Your task to perform on an android device: Go to display settings Image 0: 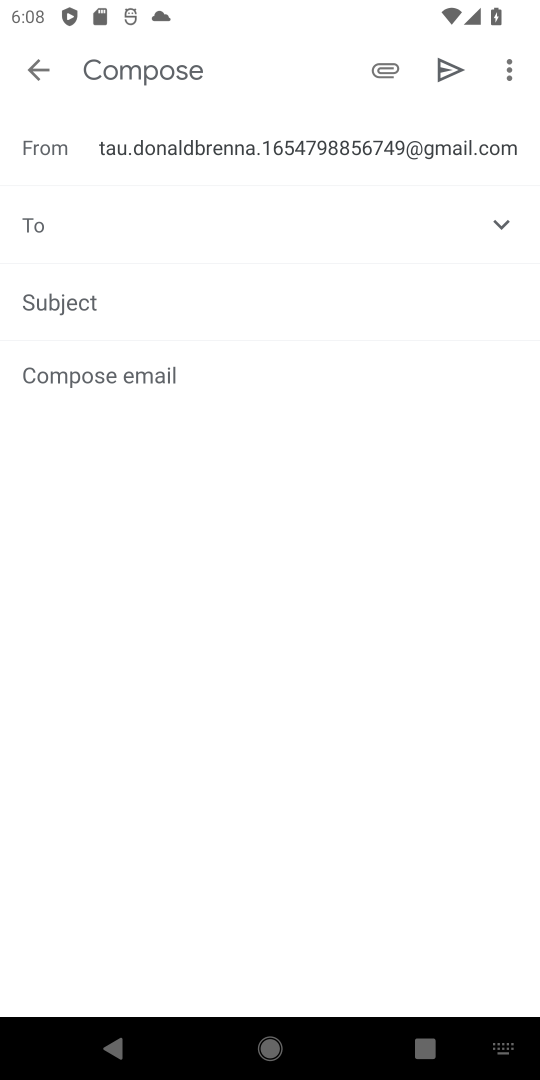
Step 0: press back button
Your task to perform on an android device: Go to display settings Image 1: 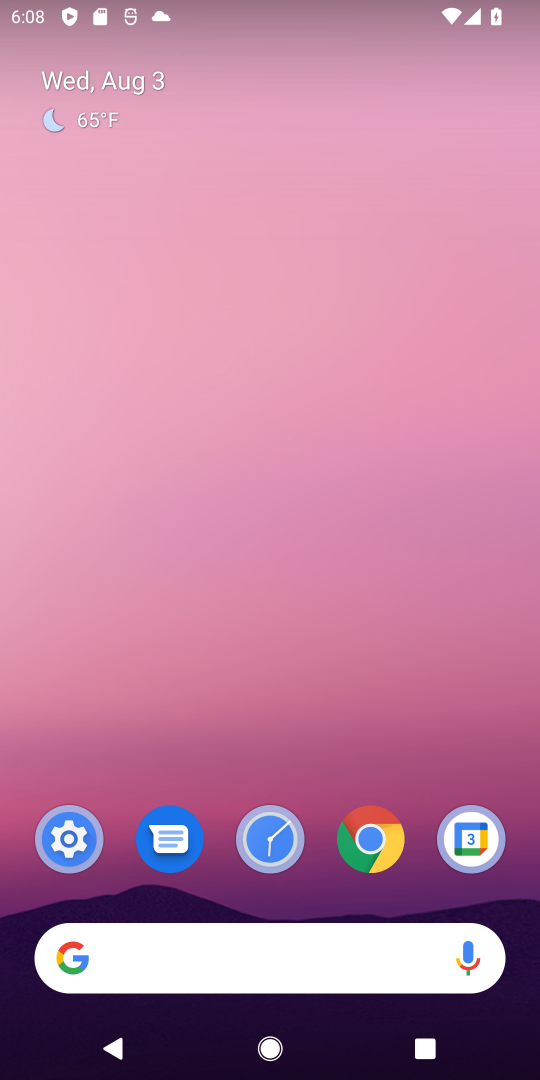
Step 1: click (85, 838)
Your task to perform on an android device: Go to display settings Image 2: 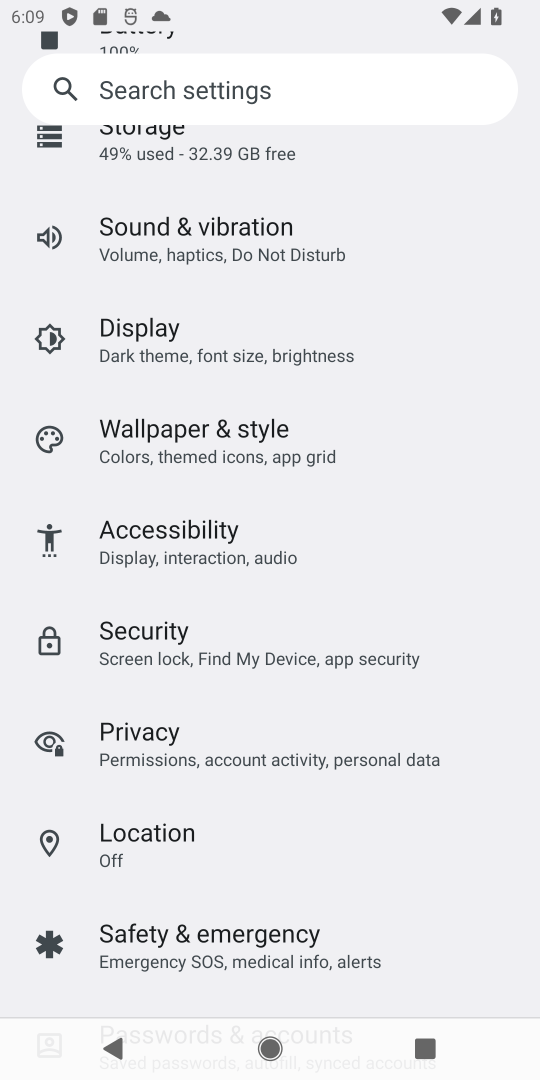
Step 2: click (155, 339)
Your task to perform on an android device: Go to display settings Image 3: 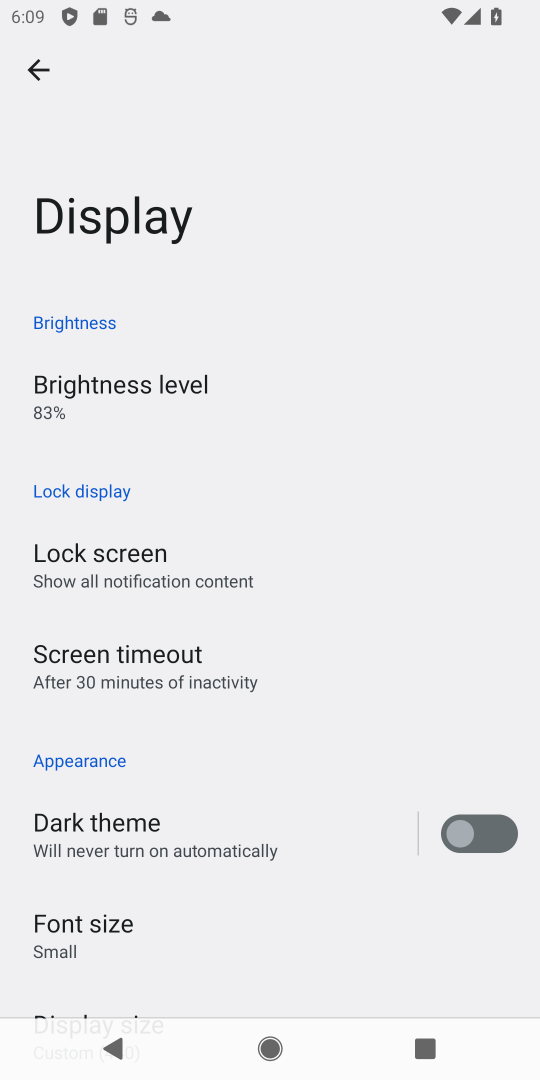
Step 3: task complete